Your task to perform on an android device: Go to settings Image 0: 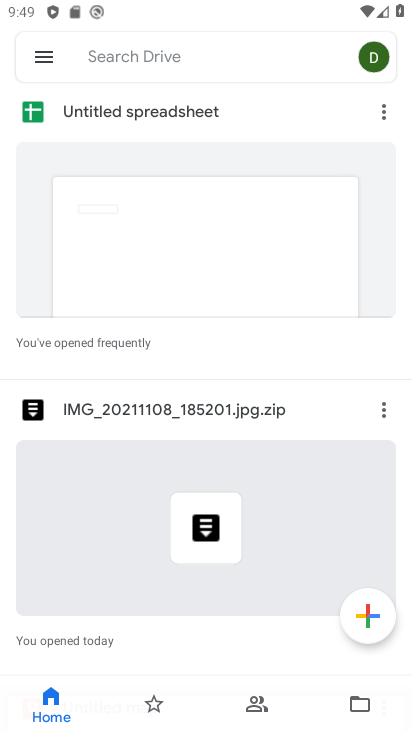
Step 0: press home button
Your task to perform on an android device: Go to settings Image 1: 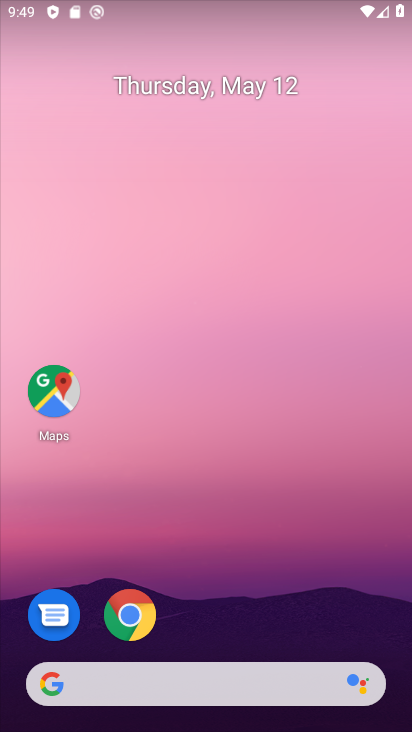
Step 1: drag from (220, 707) to (220, 167)
Your task to perform on an android device: Go to settings Image 2: 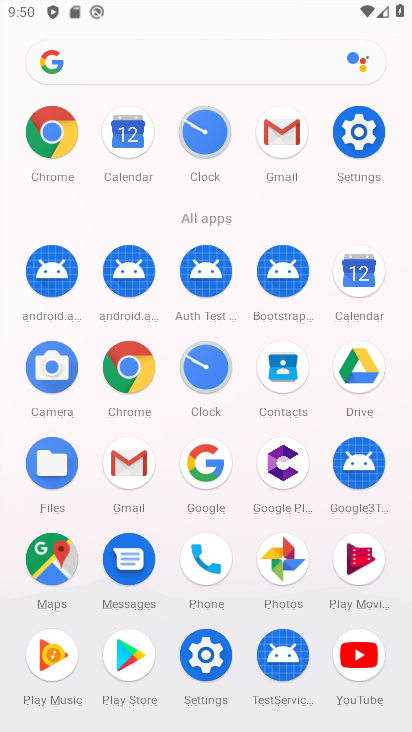
Step 2: click (355, 143)
Your task to perform on an android device: Go to settings Image 3: 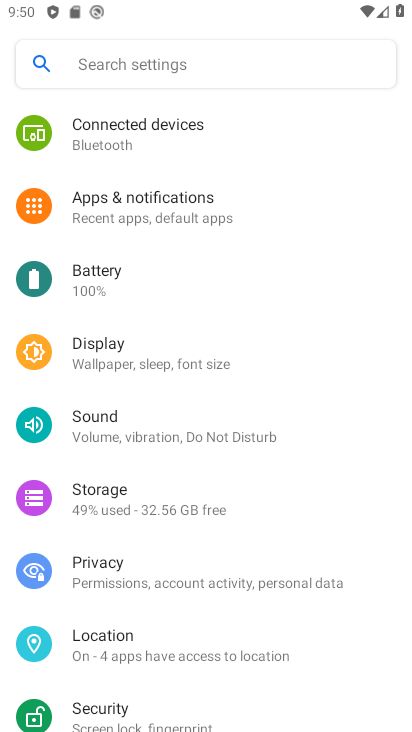
Step 3: task complete